Your task to perform on an android device: Open Chrome and go to settings Image 0: 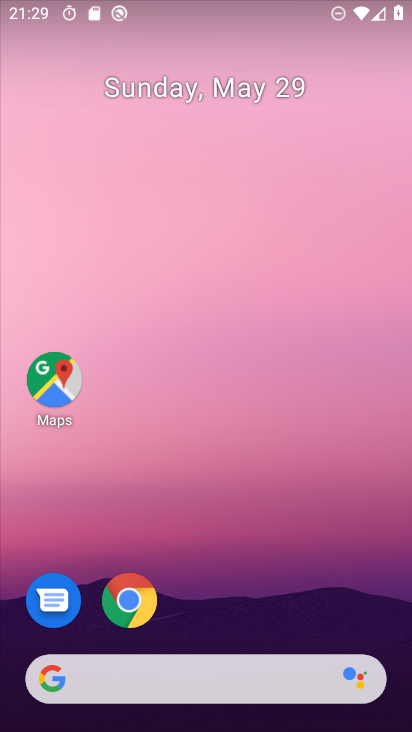
Step 0: drag from (274, 593) to (317, 49)
Your task to perform on an android device: Open Chrome and go to settings Image 1: 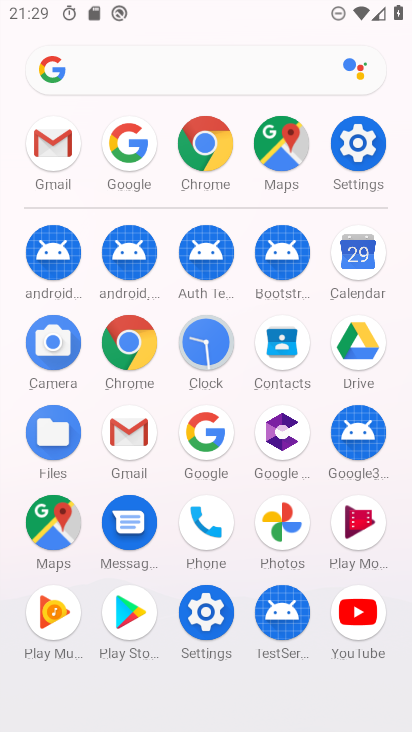
Step 1: click (124, 338)
Your task to perform on an android device: Open Chrome and go to settings Image 2: 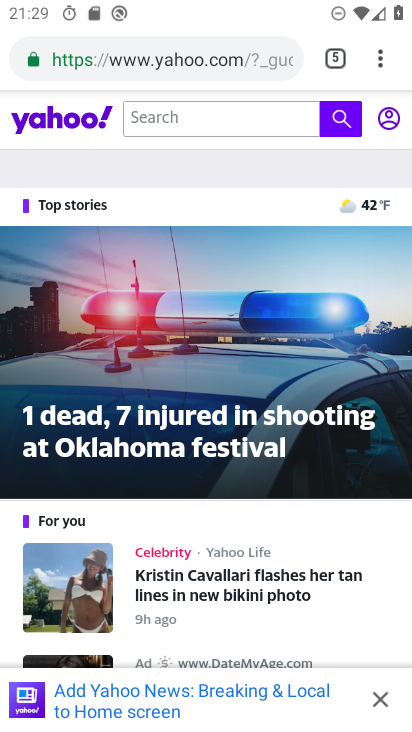
Step 2: task complete